Your task to perform on an android device: clear all cookies in the chrome app Image 0: 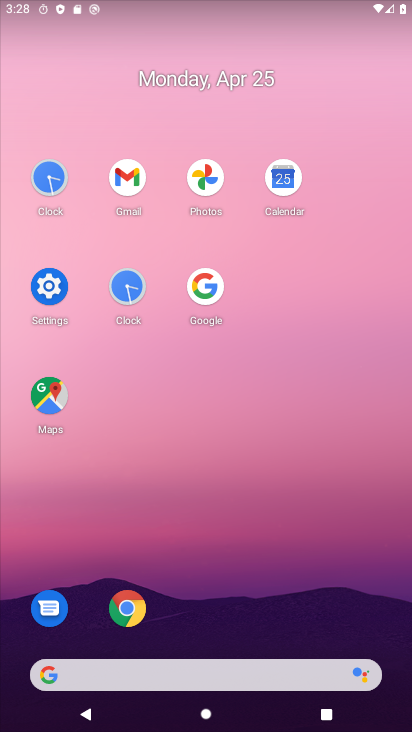
Step 0: click (134, 604)
Your task to perform on an android device: clear all cookies in the chrome app Image 1: 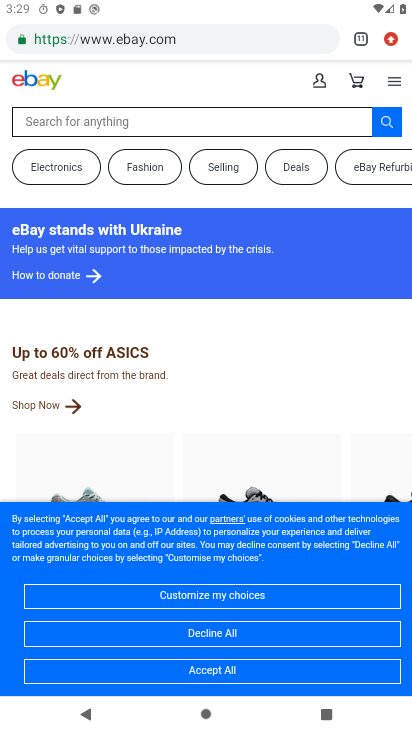
Step 1: click (394, 42)
Your task to perform on an android device: clear all cookies in the chrome app Image 2: 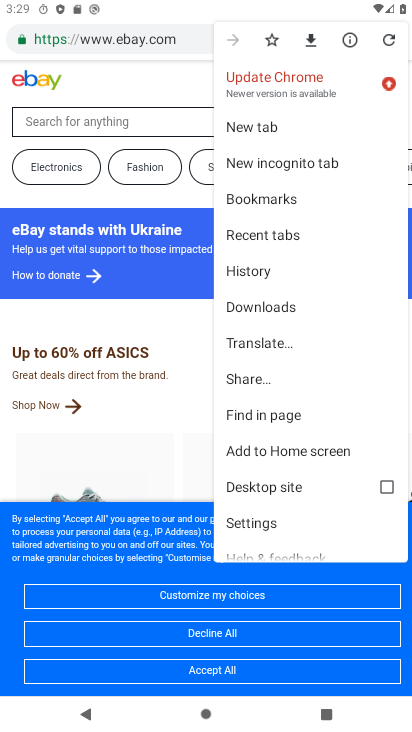
Step 2: click (259, 519)
Your task to perform on an android device: clear all cookies in the chrome app Image 3: 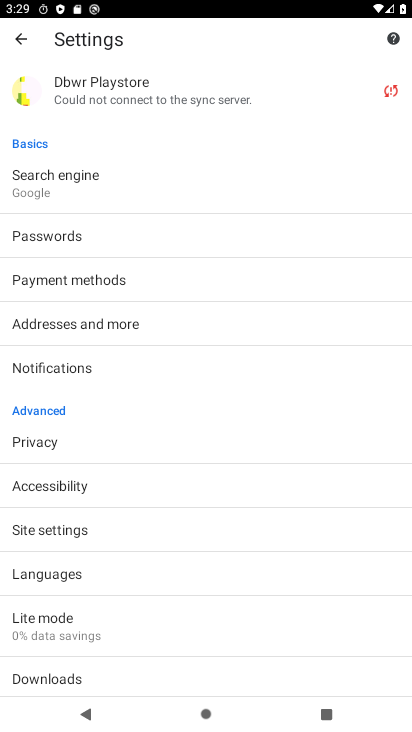
Step 3: drag from (166, 563) to (210, 228)
Your task to perform on an android device: clear all cookies in the chrome app Image 4: 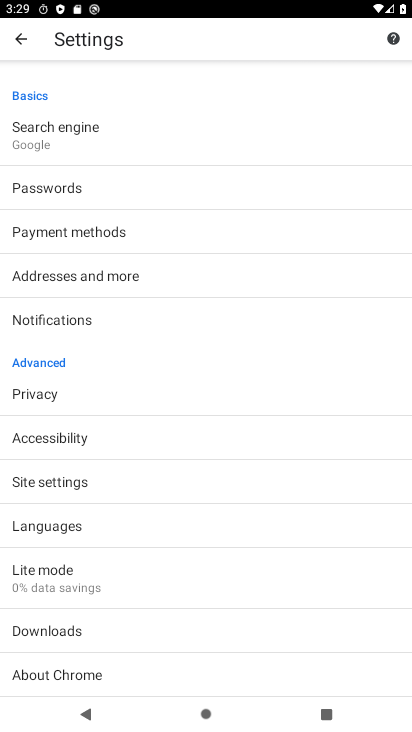
Step 4: click (120, 388)
Your task to perform on an android device: clear all cookies in the chrome app Image 5: 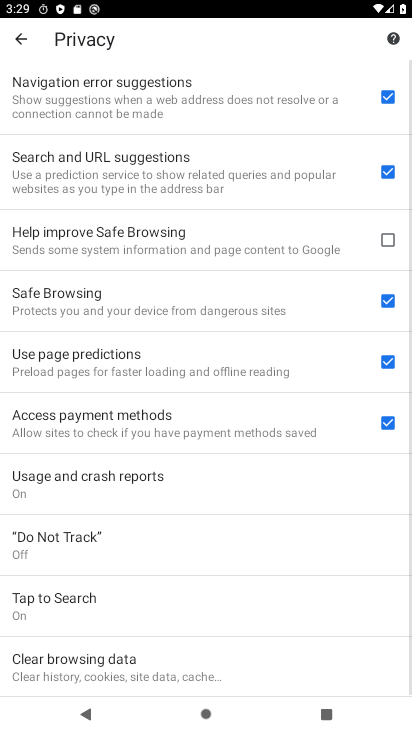
Step 5: drag from (185, 646) to (227, 187)
Your task to perform on an android device: clear all cookies in the chrome app Image 6: 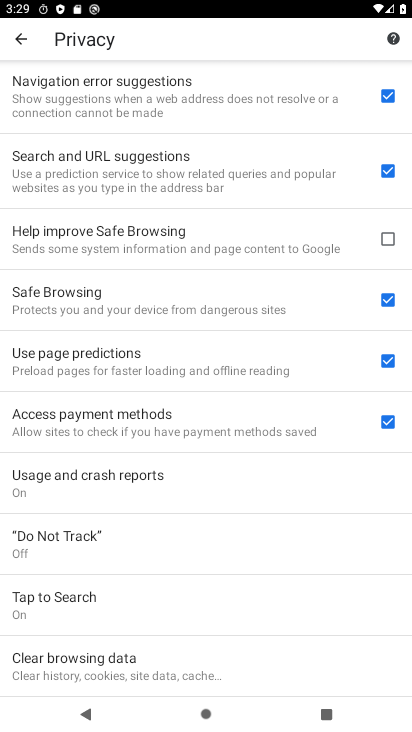
Step 6: click (167, 659)
Your task to perform on an android device: clear all cookies in the chrome app Image 7: 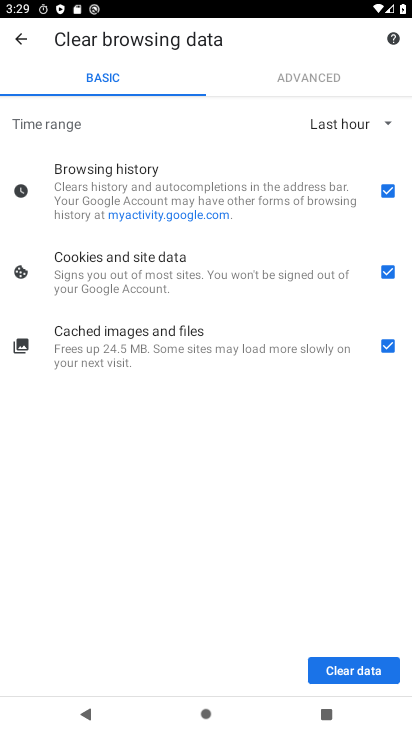
Step 7: click (368, 674)
Your task to perform on an android device: clear all cookies in the chrome app Image 8: 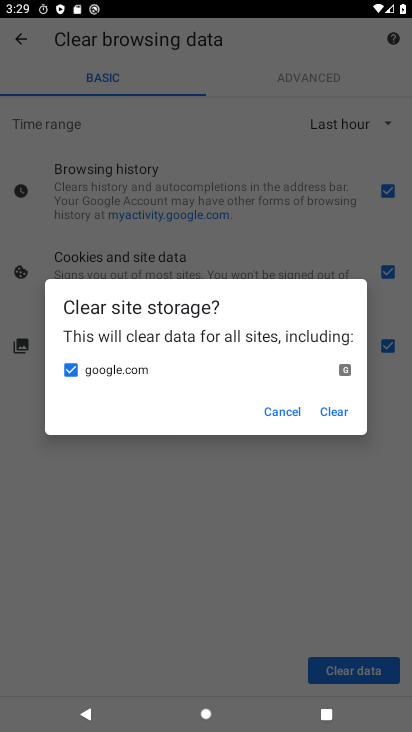
Step 8: click (328, 415)
Your task to perform on an android device: clear all cookies in the chrome app Image 9: 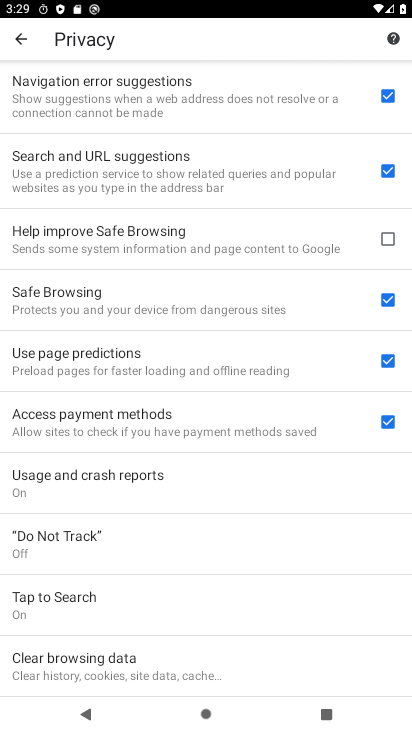
Step 9: task complete